Your task to perform on an android device: Open ESPN.com Image 0: 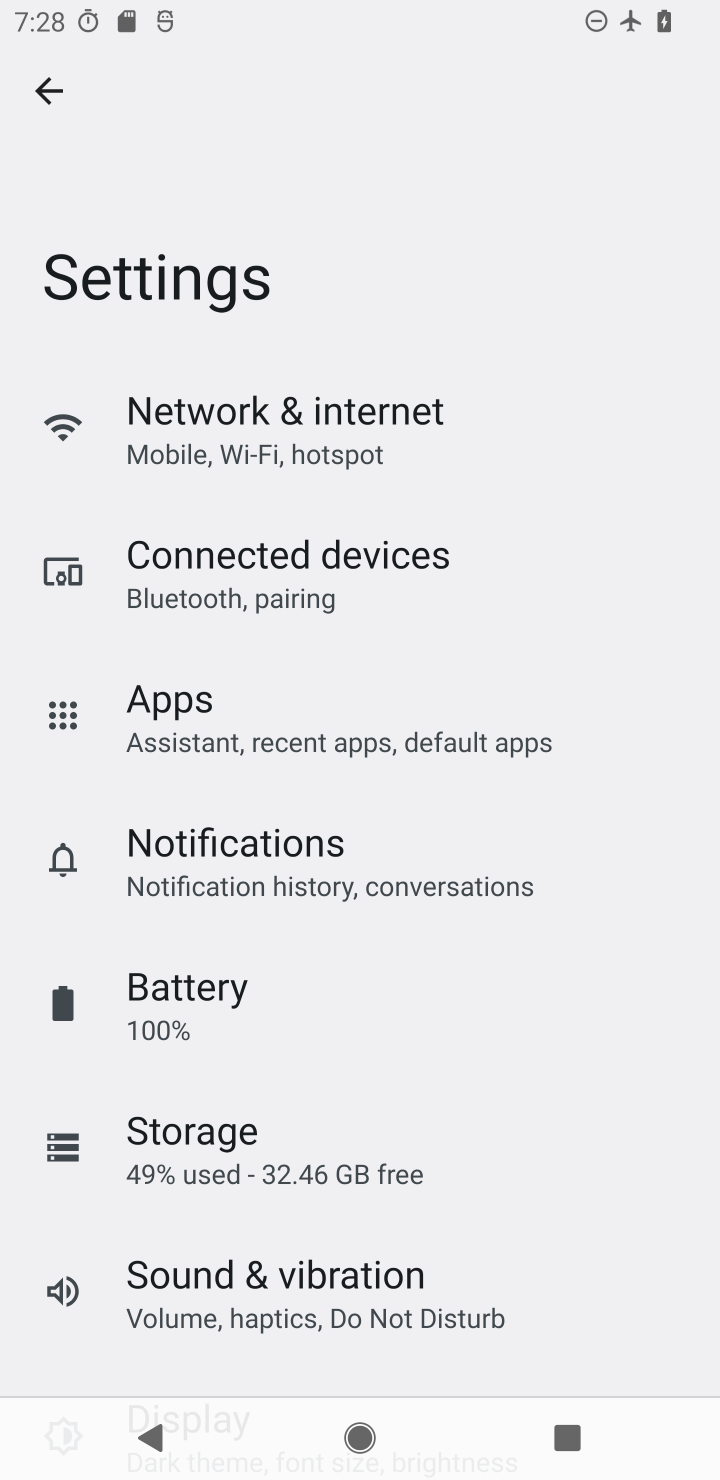
Step 0: press home button
Your task to perform on an android device: Open ESPN.com Image 1: 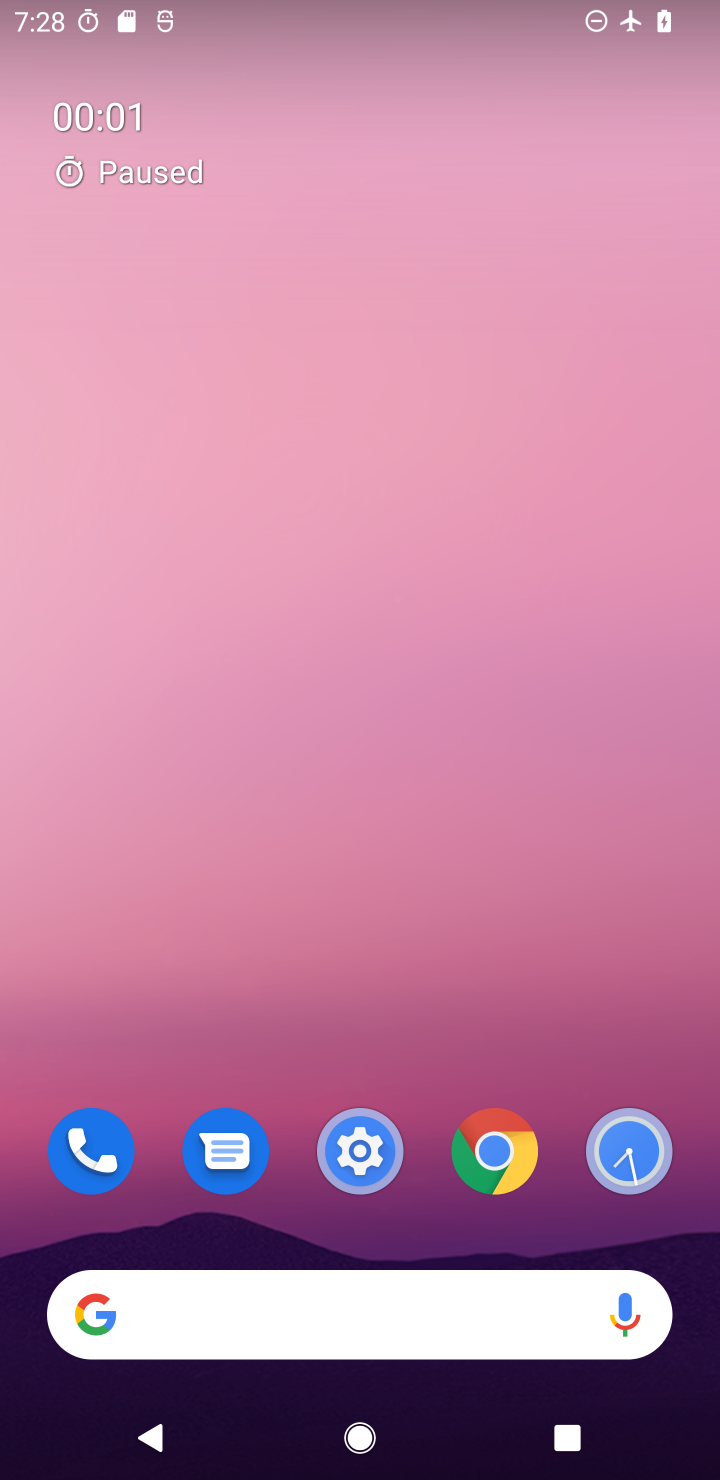
Step 1: drag from (396, 856) to (400, 0)
Your task to perform on an android device: Open ESPN.com Image 2: 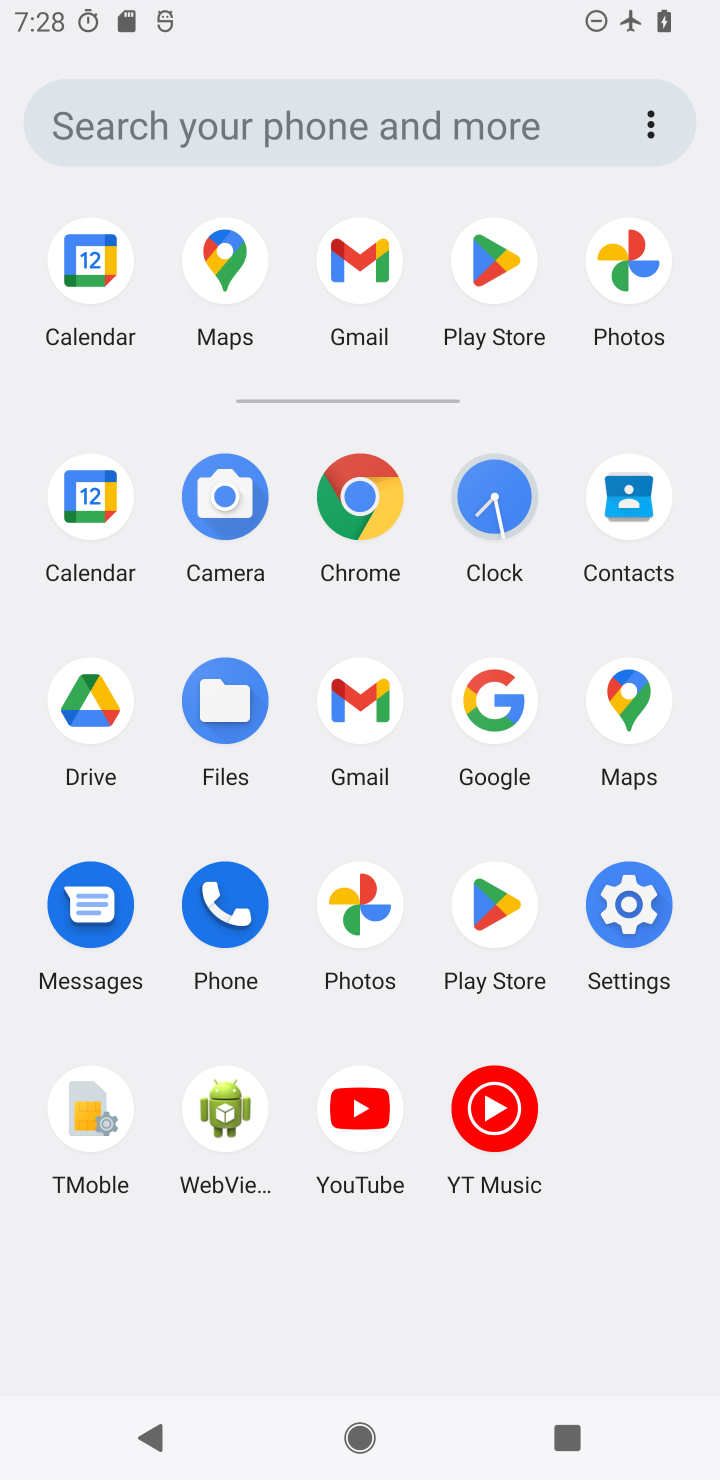
Step 2: click (358, 502)
Your task to perform on an android device: Open ESPN.com Image 3: 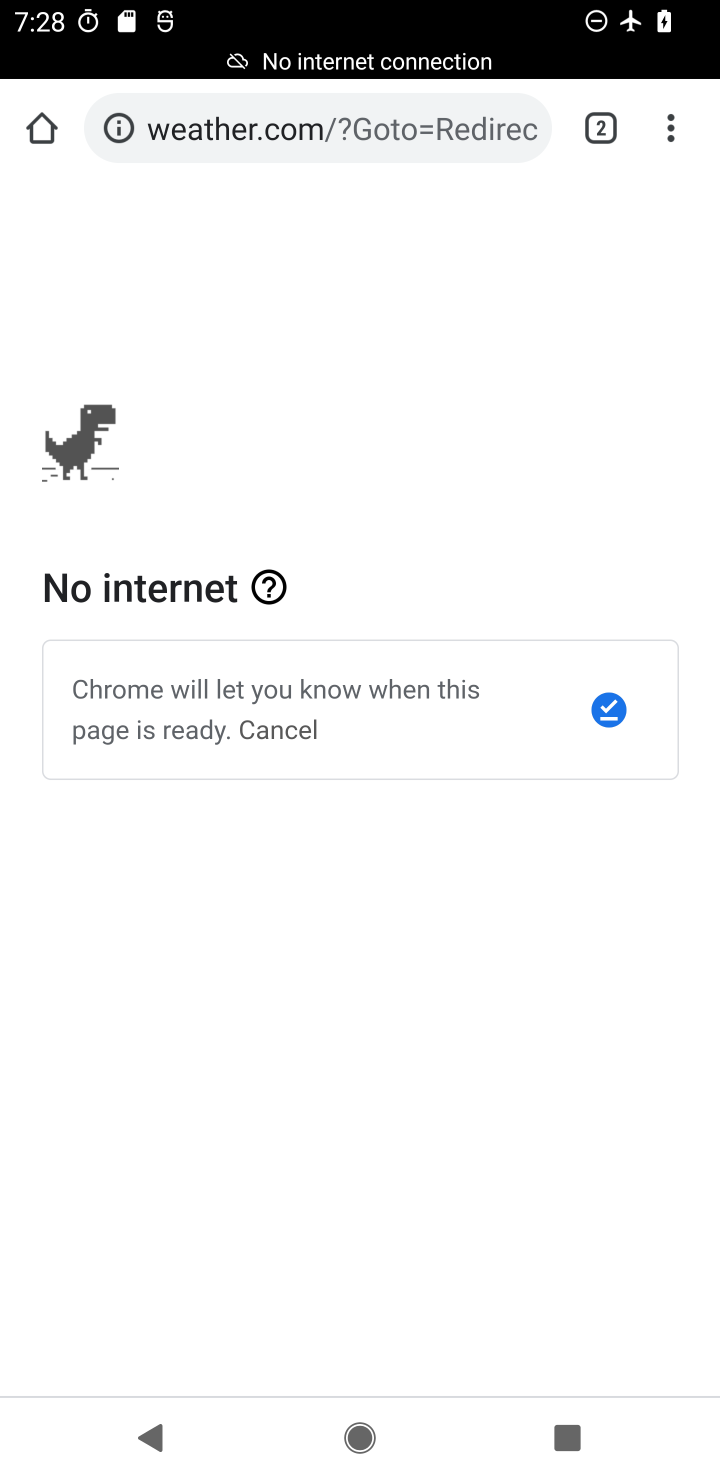
Step 3: click (321, 115)
Your task to perform on an android device: Open ESPN.com Image 4: 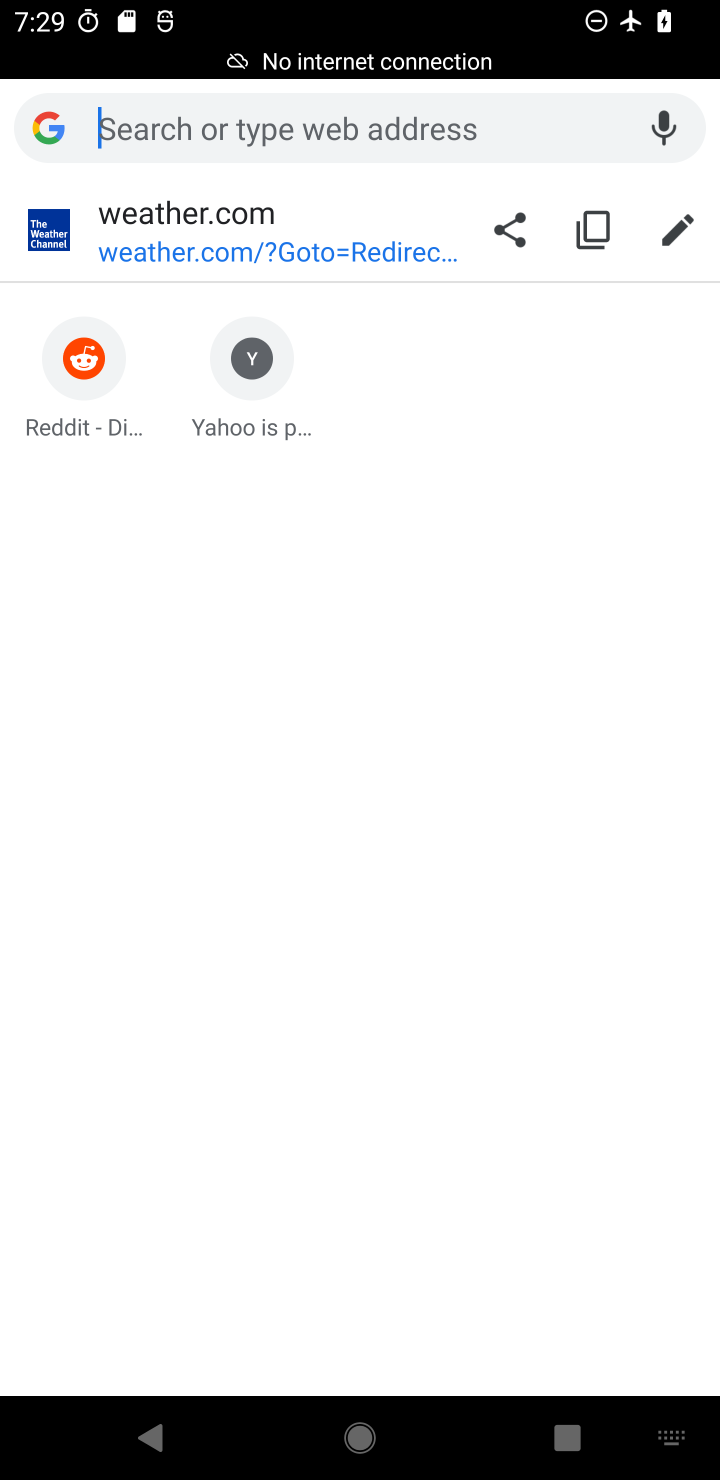
Step 4: type "espn.com"
Your task to perform on an android device: Open ESPN.com Image 5: 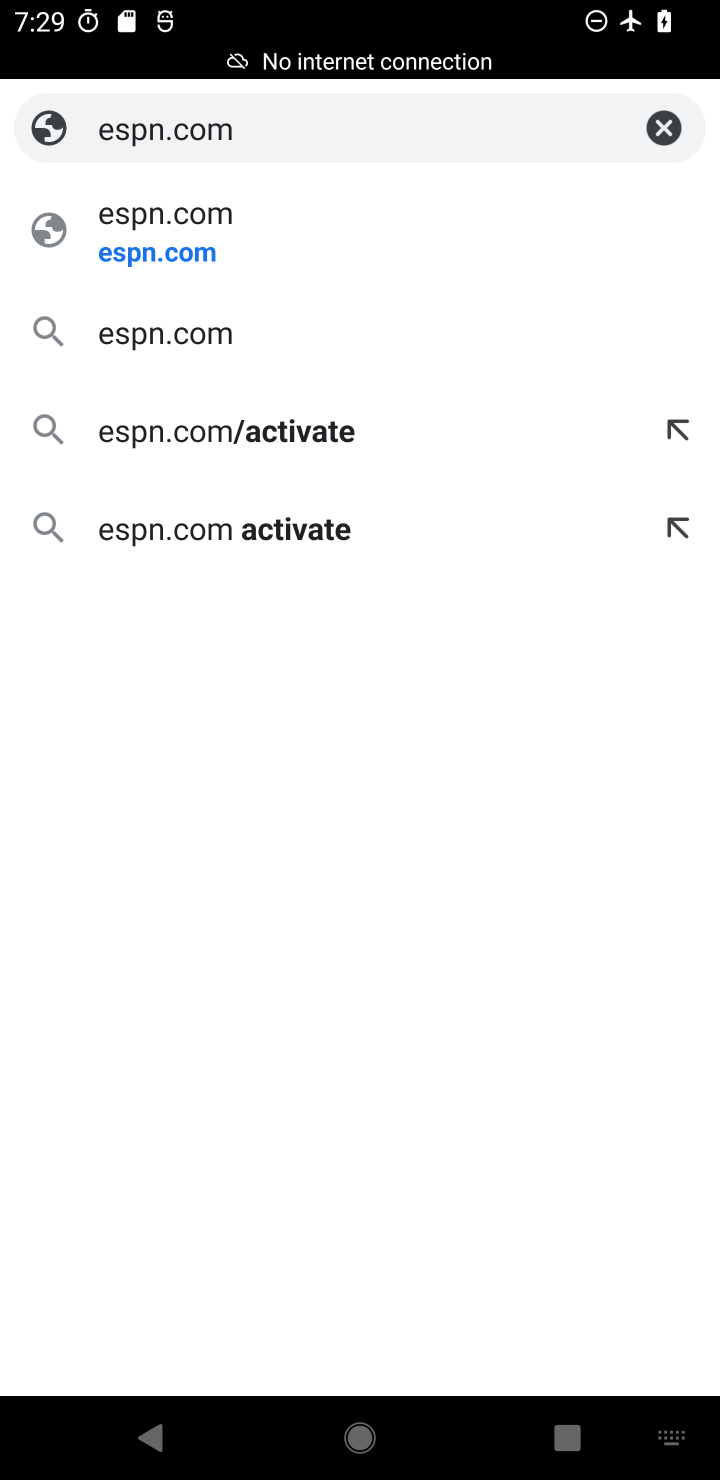
Step 5: click (184, 255)
Your task to perform on an android device: Open ESPN.com Image 6: 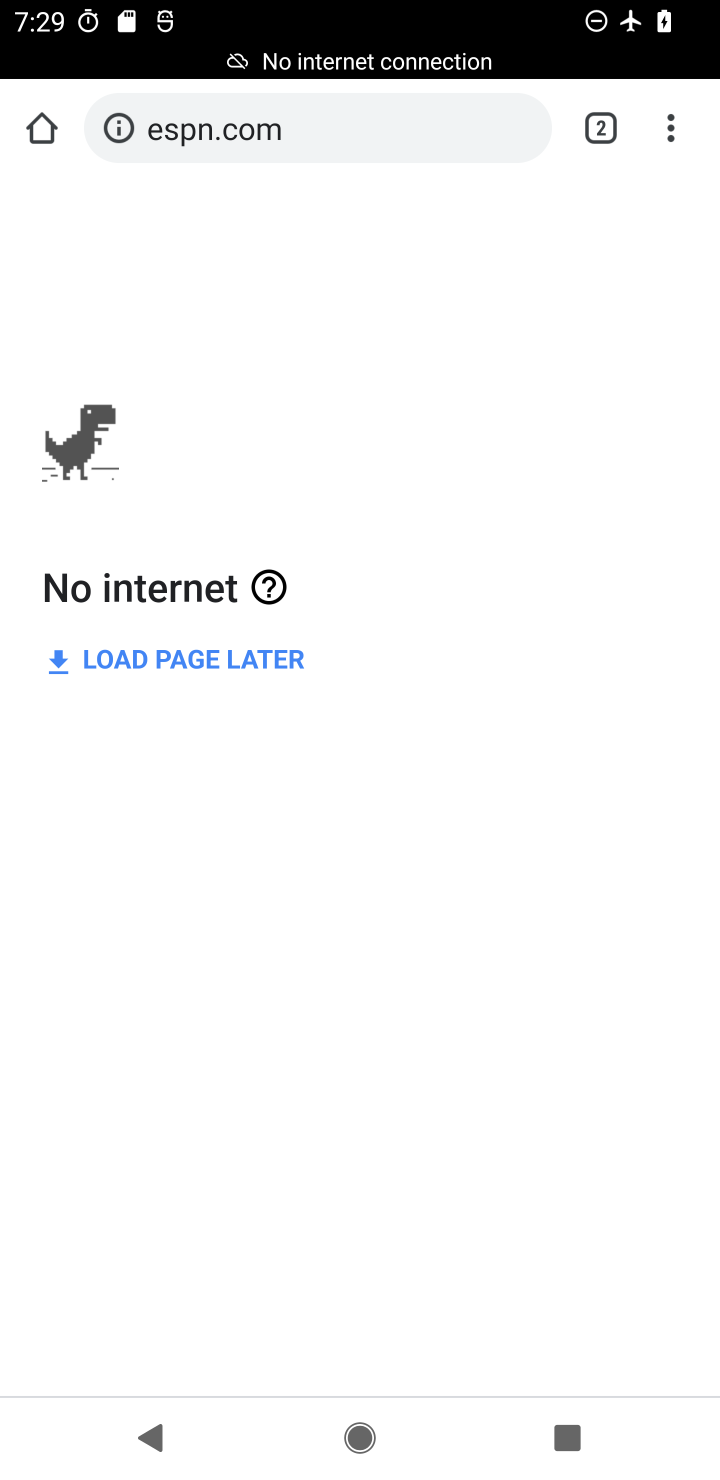
Step 6: task complete